Your task to perform on an android device: Go to Google Image 0: 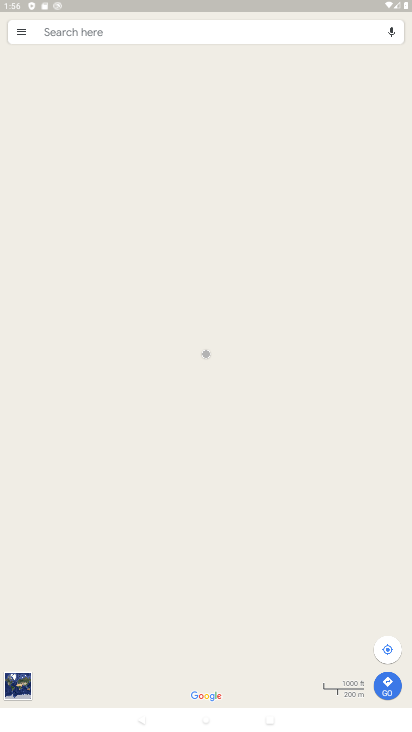
Step 0: press home button
Your task to perform on an android device: Go to Google Image 1: 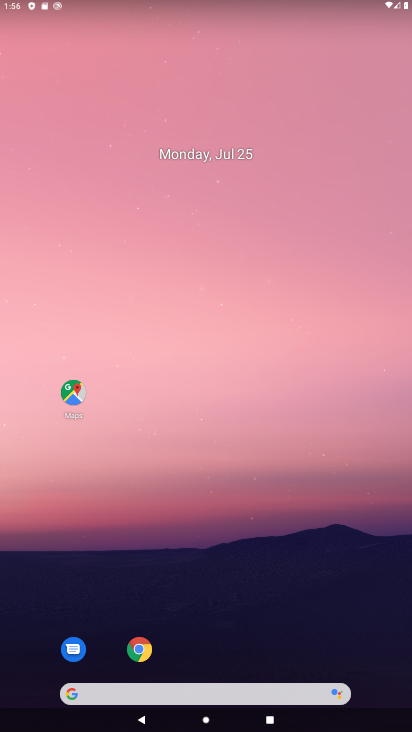
Step 1: click (139, 649)
Your task to perform on an android device: Go to Google Image 2: 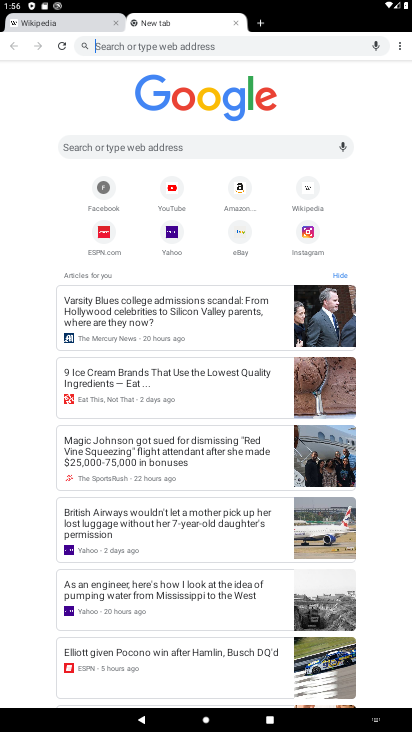
Step 2: task complete